Your task to perform on an android device: toggle notification dots Image 0: 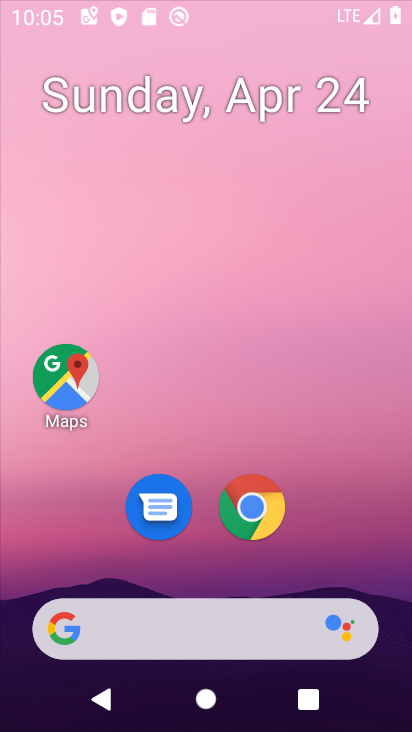
Step 0: press home button
Your task to perform on an android device: toggle notification dots Image 1: 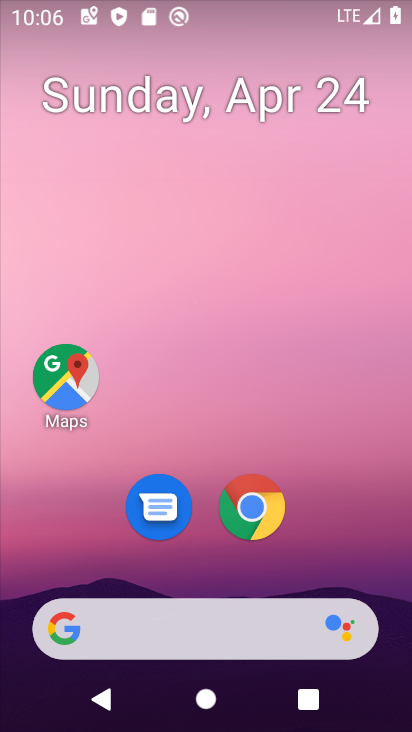
Step 1: click (253, 501)
Your task to perform on an android device: toggle notification dots Image 2: 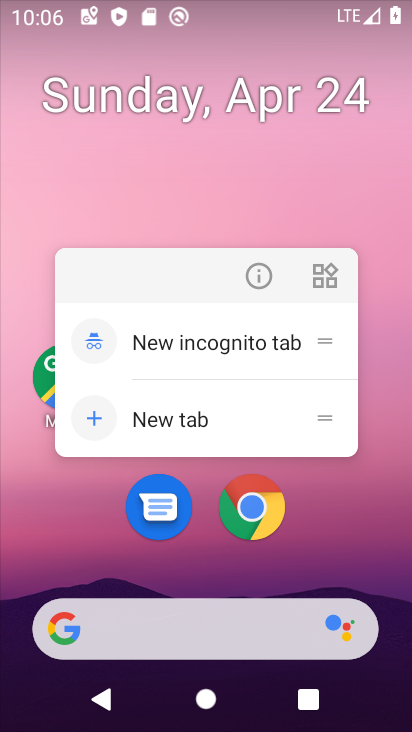
Step 2: click (257, 280)
Your task to perform on an android device: toggle notification dots Image 3: 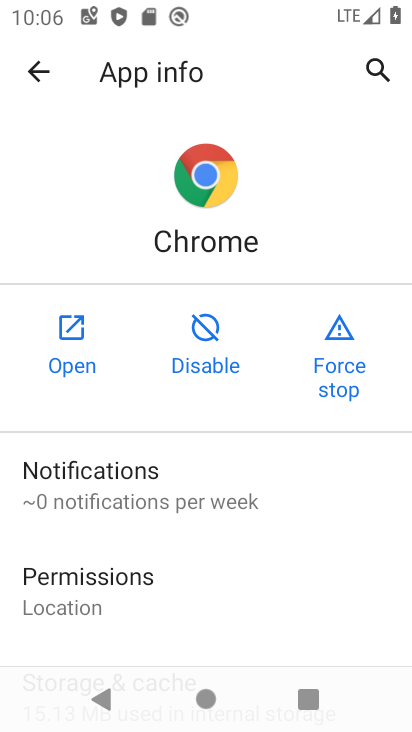
Step 3: click (74, 358)
Your task to perform on an android device: toggle notification dots Image 4: 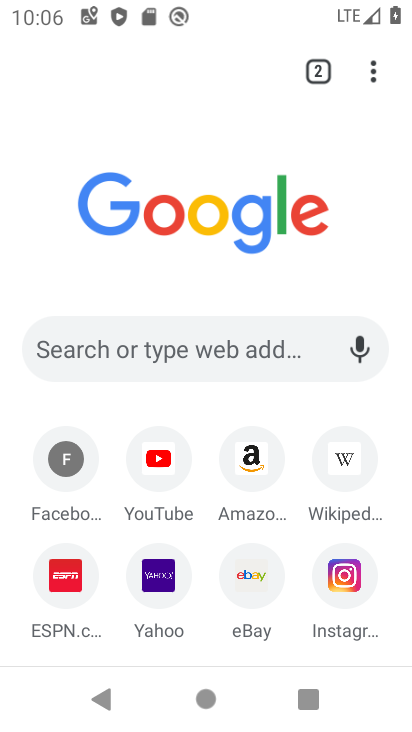
Step 4: click (376, 75)
Your task to perform on an android device: toggle notification dots Image 5: 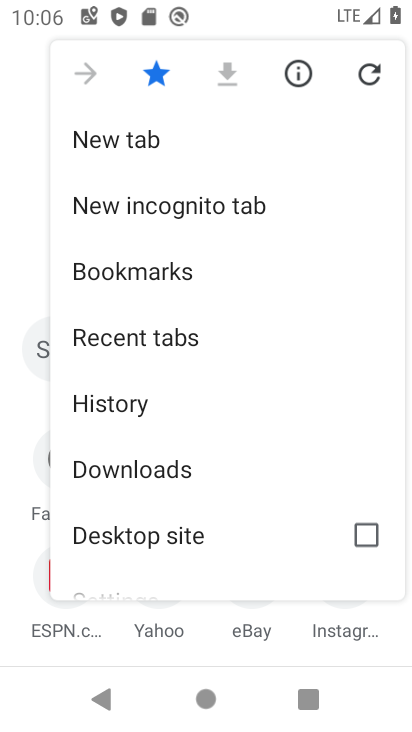
Step 5: drag from (162, 450) to (226, 132)
Your task to perform on an android device: toggle notification dots Image 6: 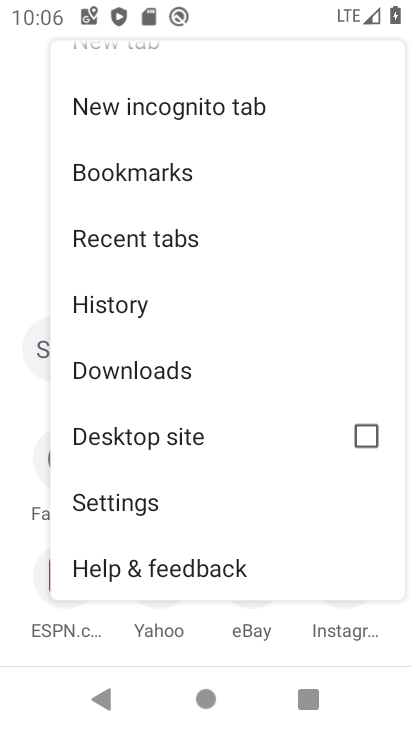
Step 6: click (121, 508)
Your task to perform on an android device: toggle notification dots Image 7: 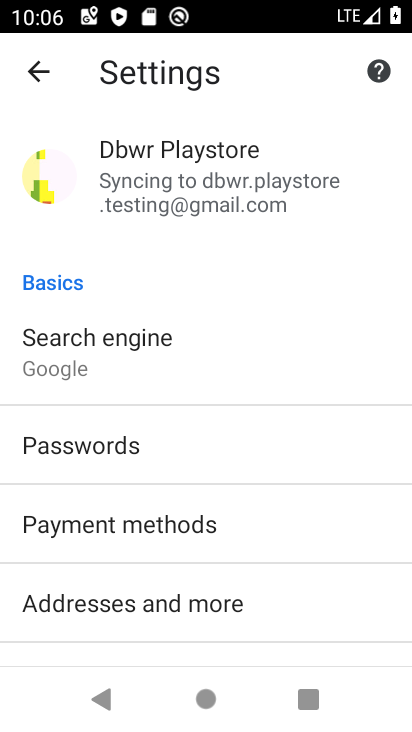
Step 7: drag from (112, 561) to (142, 95)
Your task to perform on an android device: toggle notification dots Image 8: 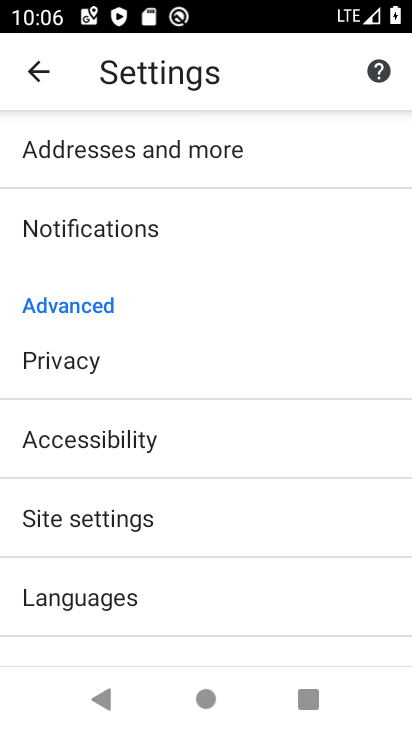
Step 8: click (127, 229)
Your task to perform on an android device: toggle notification dots Image 9: 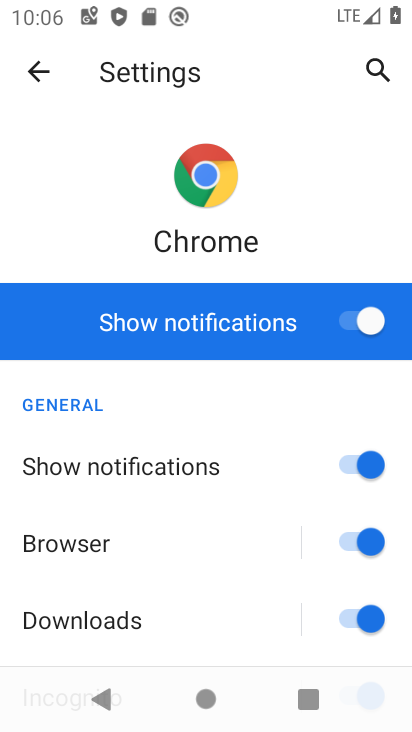
Step 9: drag from (177, 524) to (271, 106)
Your task to perform on an android device: toggle notification dots Image 10: 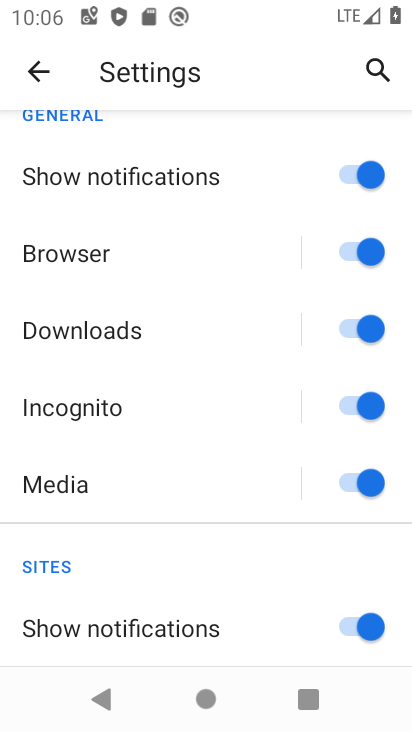
Step 10: drag from (156, 353) to (204, 172)
Your task to perform on an android device: toggle notification dots Image 11: 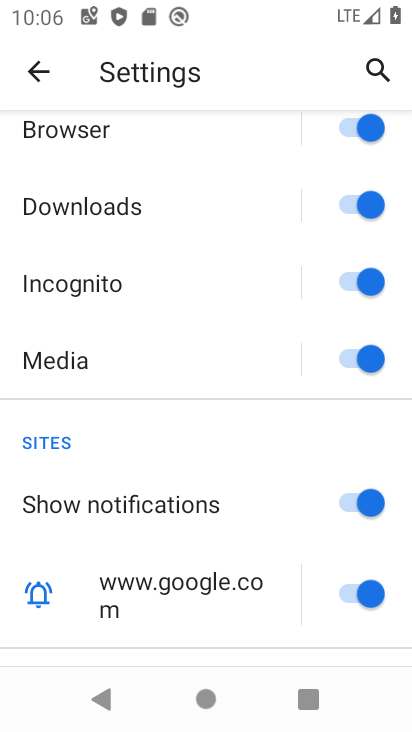
Step 11: drag from (171, 527) to (217, 198)
Your task to perform on an android device: toggle notification dots Image 12: 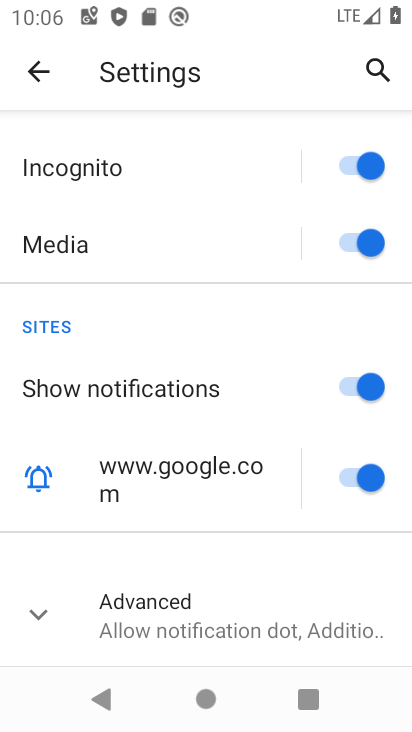
Step 12: click (47, 614)
Your task to perform on an android device: toggle notification dots Image 13: 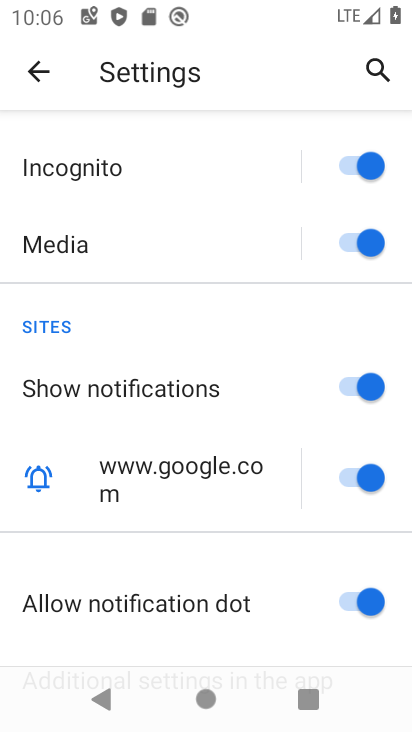
Step 13: click (343, 606)
Your task to perform on an android device: toggle notification dots Image 14: 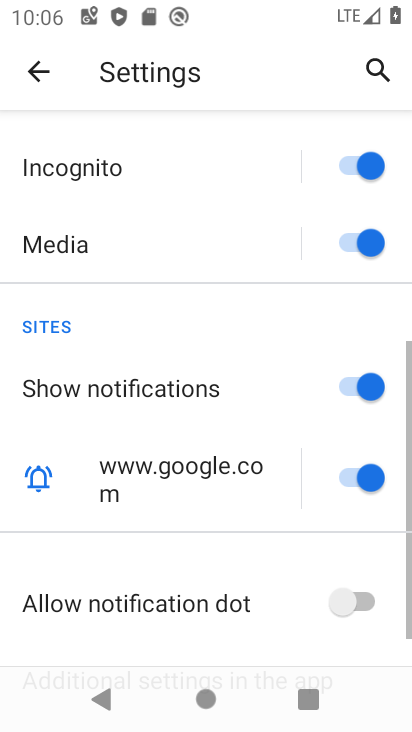
Step 14: task complete